Your task to perform on an android device: Go to Google Image 0: 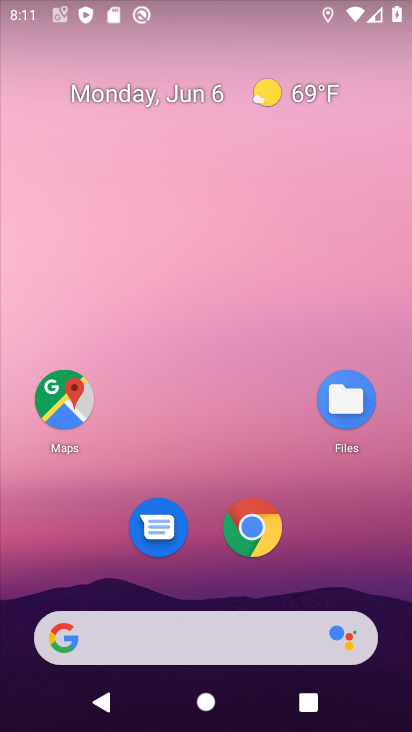
Step 0: drag from (297, 564) to (4, 349)
Your task to perform on an android device: Go to Google Image 1: 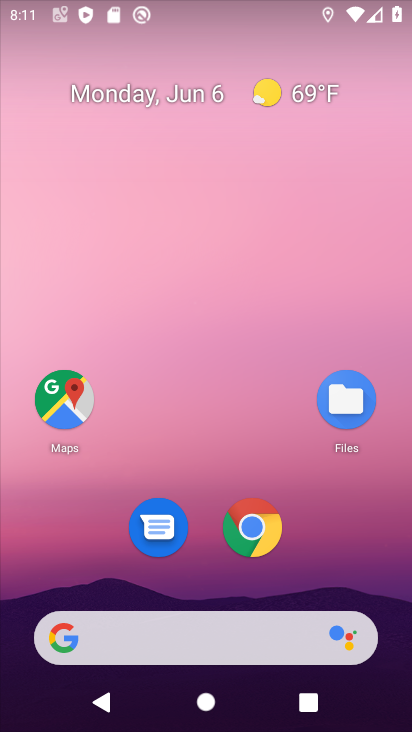
Step 1: drag from (246, 171) to (243, 215)
Your task to perform on an android device: Go to Google Image 2: 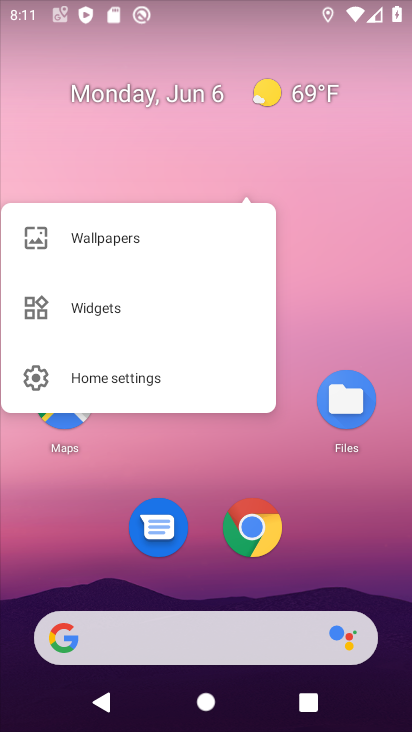
Step 2: click (304, 527)
Your task to perform on an android device: Go to Google Image 3: 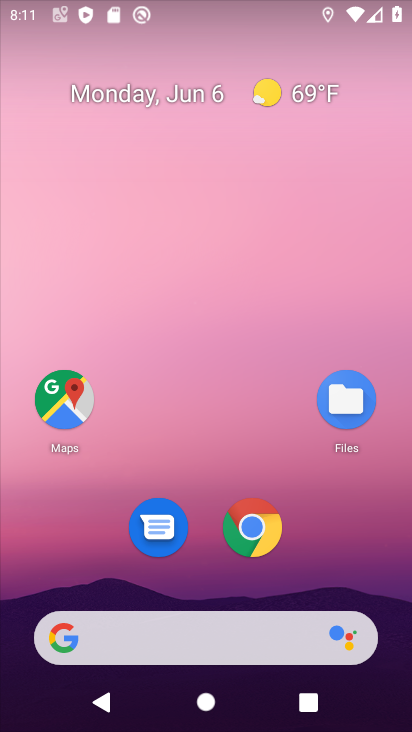
Step 3: drag from (142, 569) to (165, 142)
Your task to perform on an android device: Go to Google Image 4: 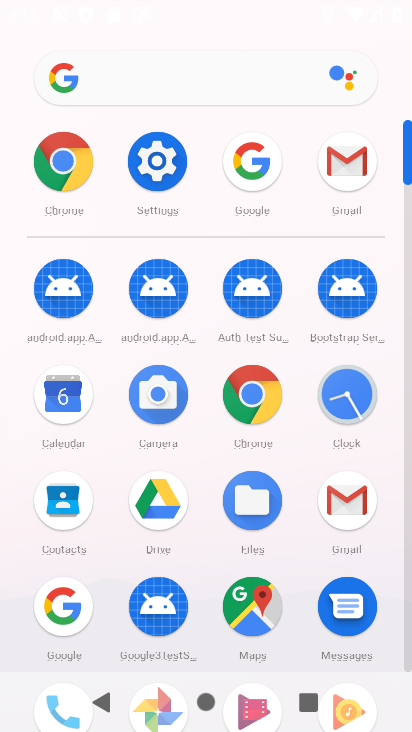
Step 4: click (245, 166)
Your task to perform on an android device: Go to Google Image 5: 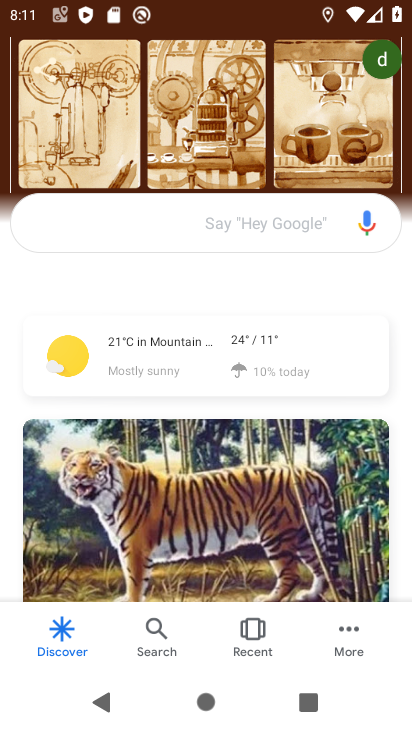
Step 5: task complete